Your task to perform on an android device: Open a new Chrome incognito tab Image 0: 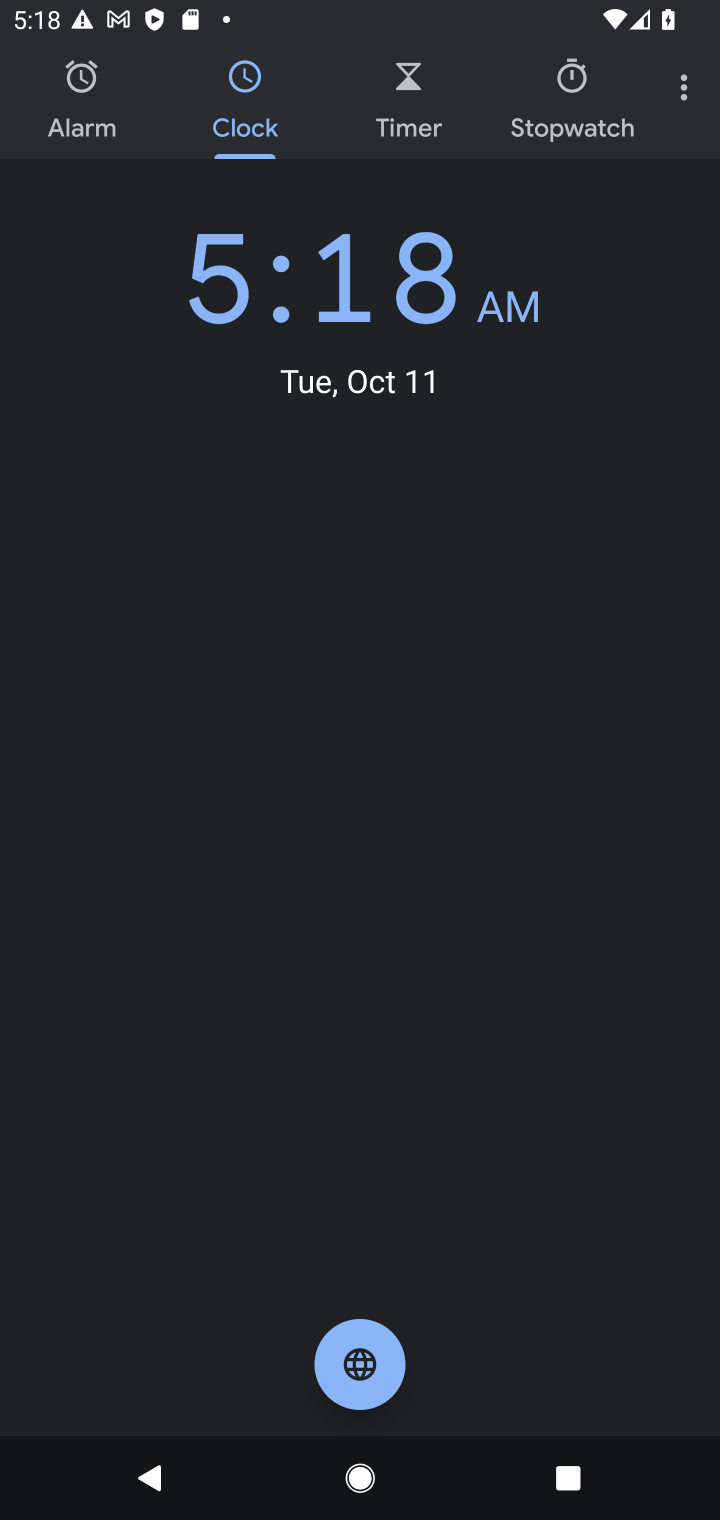
Step 0: press home button
Your task to perform on an android device: Open a new Chrome incognito tab Image 1: 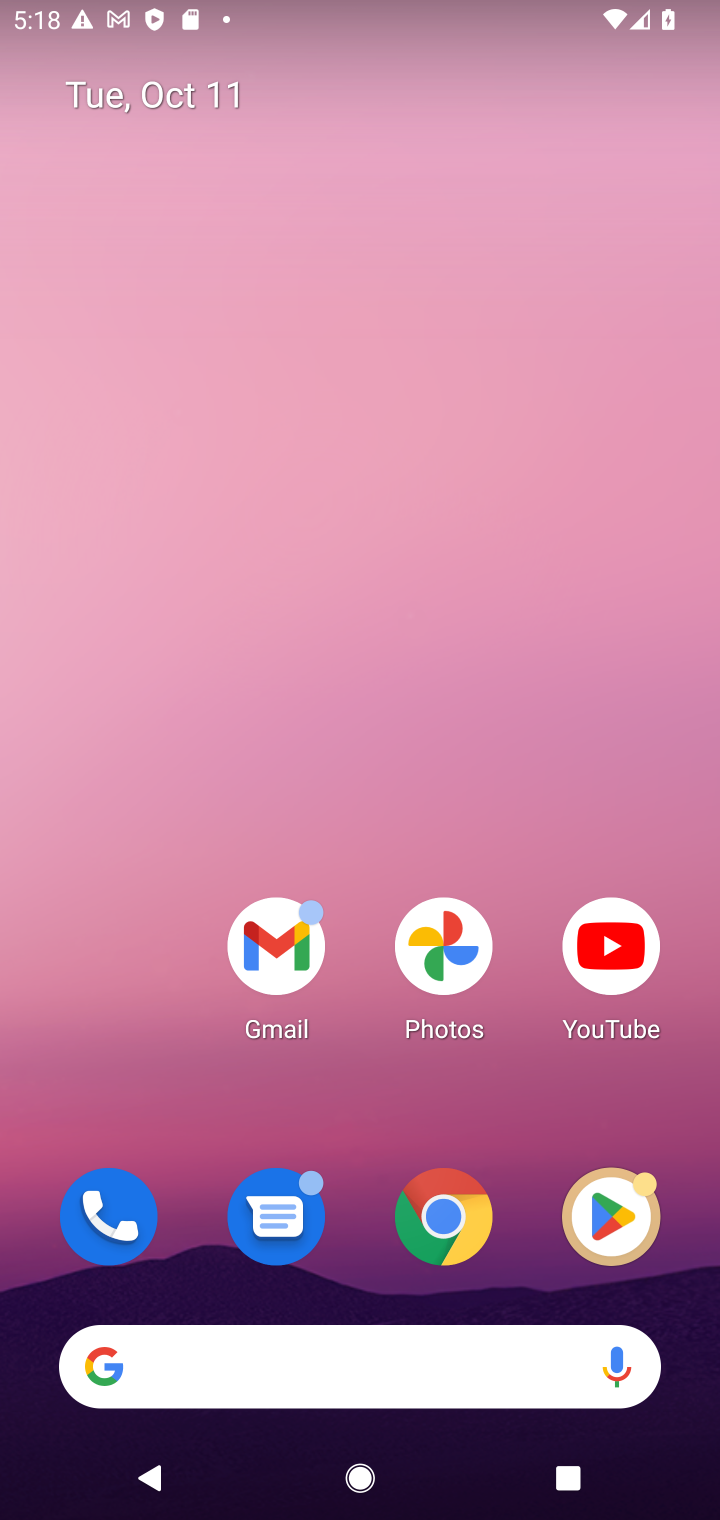
Step 1: click (449, 1219)
Your task to perform on an android device: Open a new Chrome incognito tab Image 2: 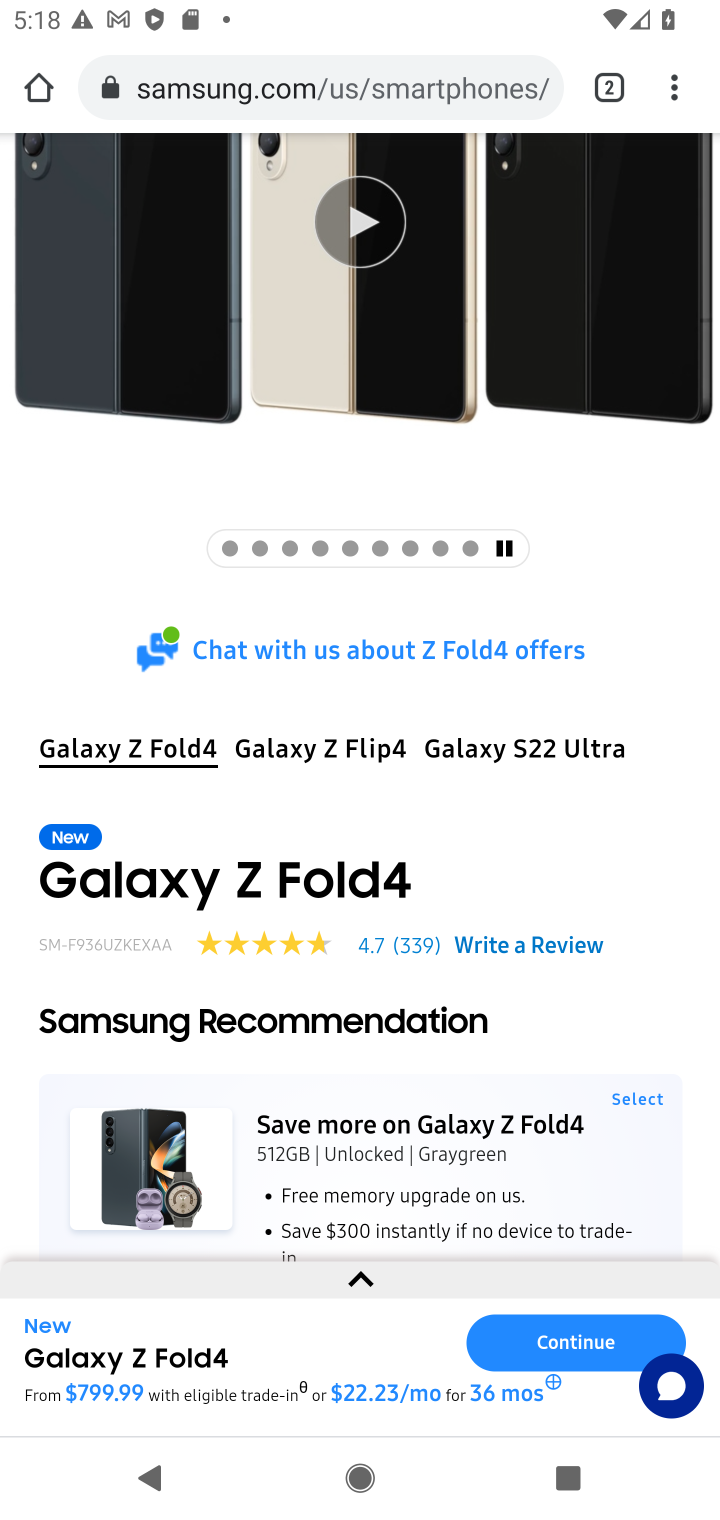
Step 2: task complete